Your task to perform on an android device: toggle priority inbox in the gmail app Image 0: 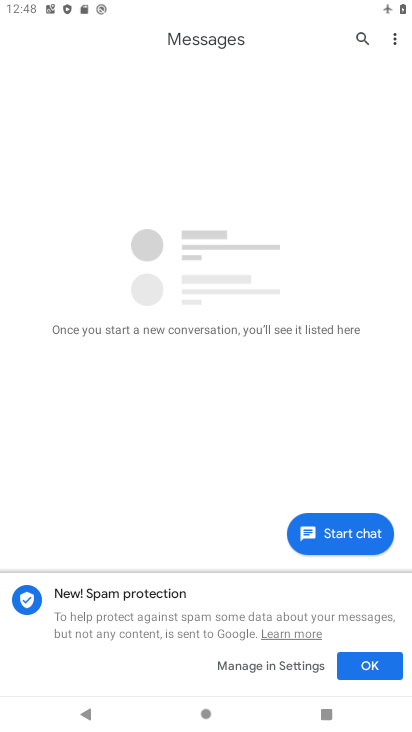
Step 0: press home button
Your task to perform on an android device: toggle priority inbox in the gmail app Image 1: 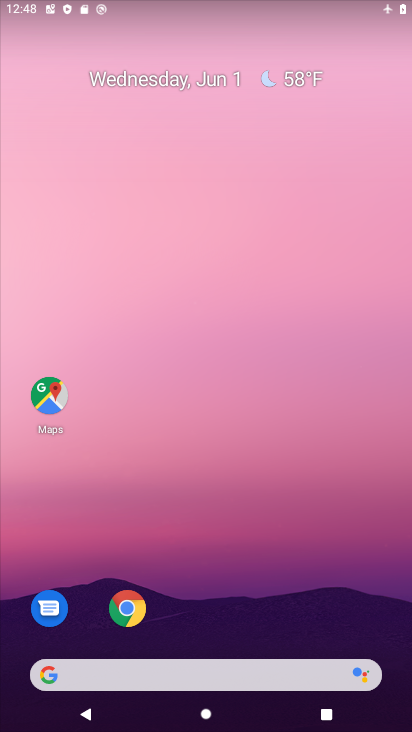
Step 1: click (39, 389)
Your task to perform on an android device: toggle priority inbox in the gmail app Image 2: 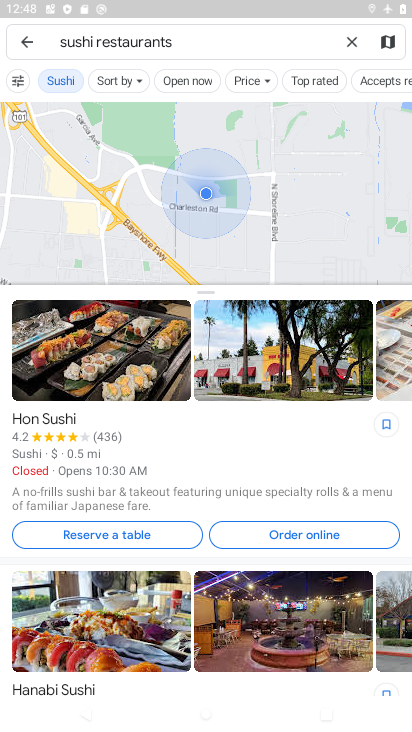
Step 2: press home button
Your task to perform on an android device: toggle priority inbox in the gmail app Image 3: 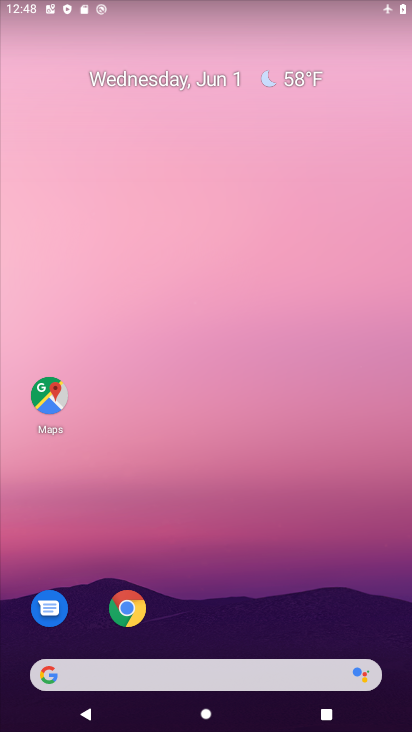
Step 3: drag from (165, 608) to (214, 0)
Your task to perform on an android device: toggle priority inbox in the gmail app Image 4: 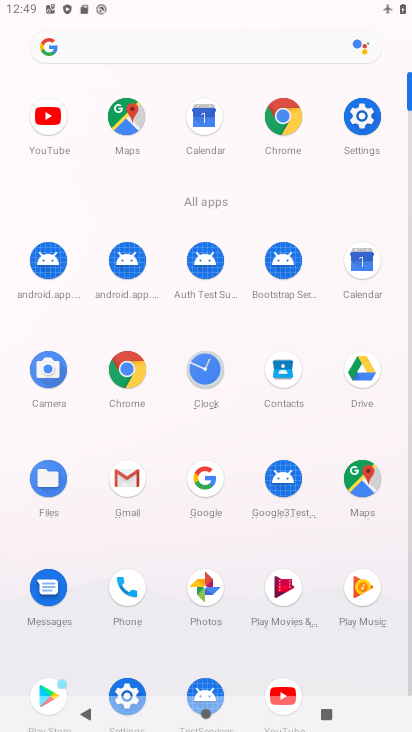
Step 4: click (140, 485)
Your task to perform on an android device: toggle priority inbox in the gmail app Image 5: 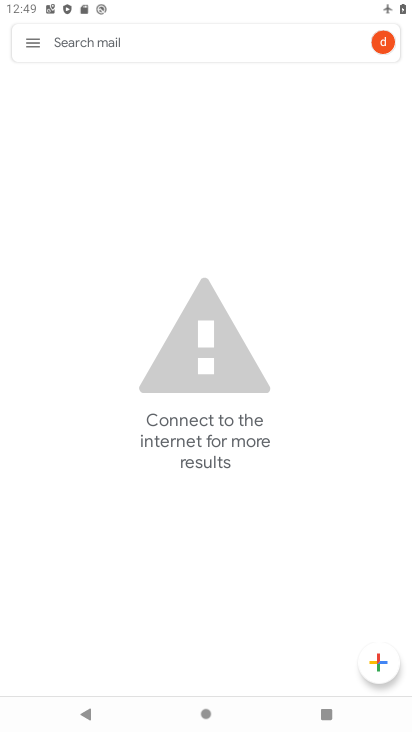
Step 5: click (25, 56)
Your task to perform on an android device: toggle priority inbox in the gmail app Image 6: 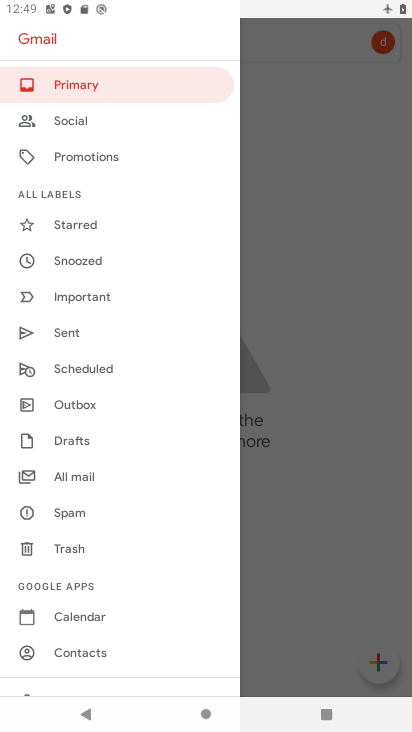
Step 6: drag from (135, 536) to (183, 115)
Your task to perform on an android device: toggle priority inbox in the gmail app Image 7: 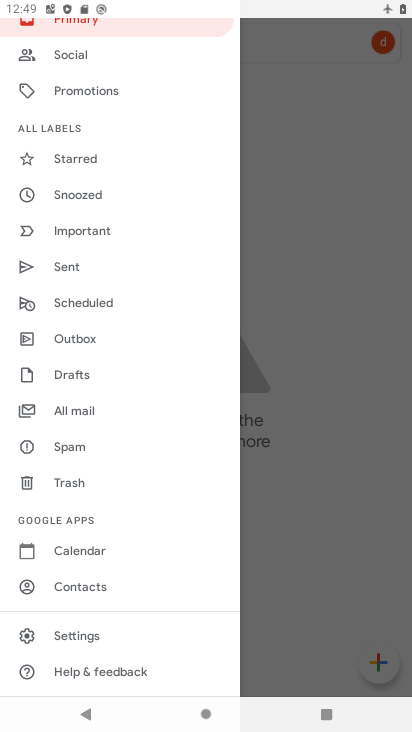
Step 7: click (129, 638)
Your task to perform on an android device: toggle priority inbox in the gmail app Image 8: 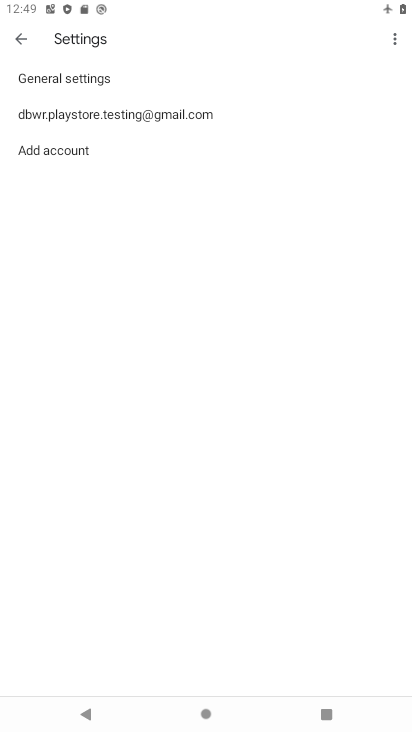
Step 8: click (74, 69)
Your task to perform on an android device: toggle priority inbox in the gmail app Image 9: 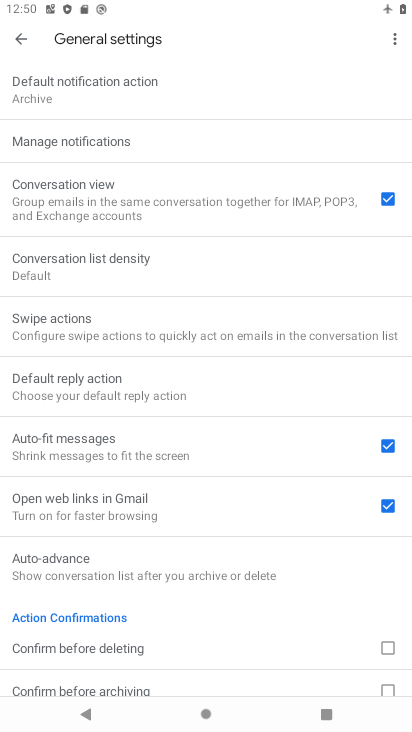
Step 9: task complete